Your task to perform on an android device: turn off notifications settings in the gmail app Image 0: 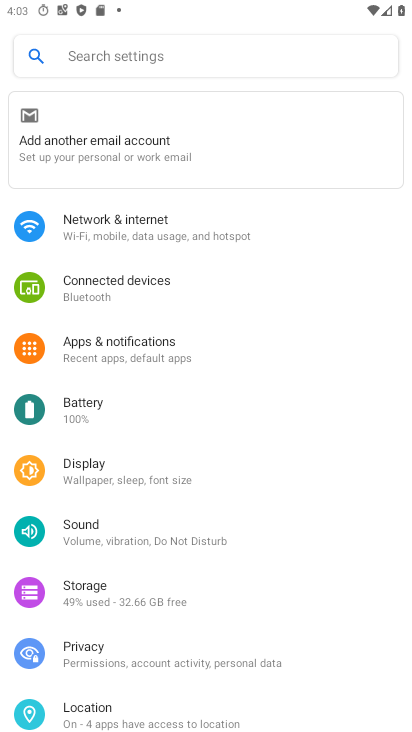
Step 0: press home button
Your task to perform on an android device: turn off notifications settings in the gmail app Image 1: 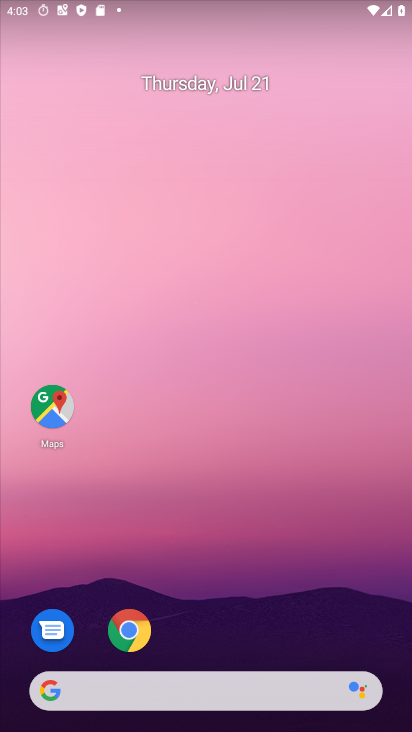
Step 1: drag from (174, 687) to (247, 56)
Your task to perform on an android device: turn off notifications settings in the gmail app Image 2: 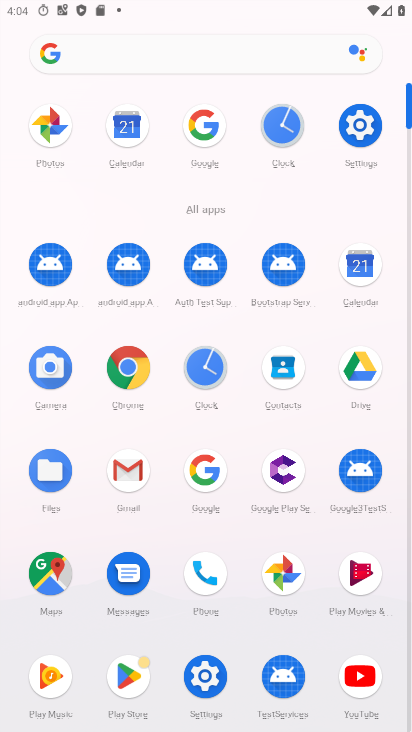
Step 2: click (128, 468)
Your task to perform on an android device: turn off notifications settings in the gmail app Image 3: 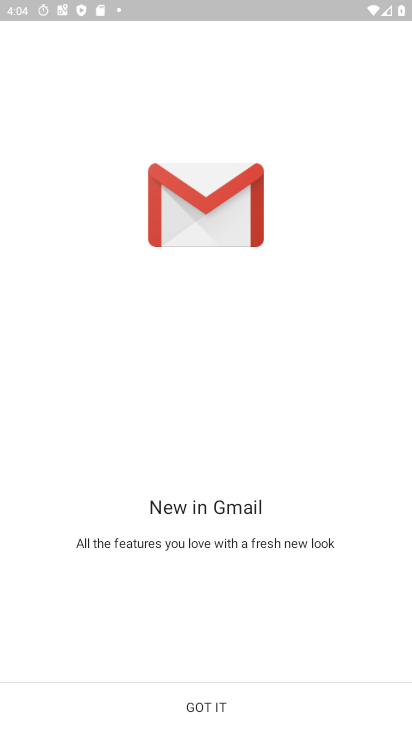
Step 3: click (208, 707)
Your task to perform on an android device: turn off notifications settings in the gmail app Image 4: 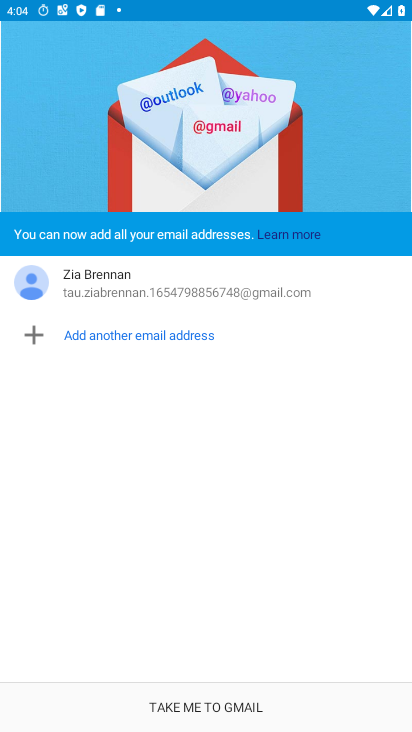
Step 4: click (208, 701)
Your task to perform on an android device: turn off notifications settings in the gmail app Image 5: 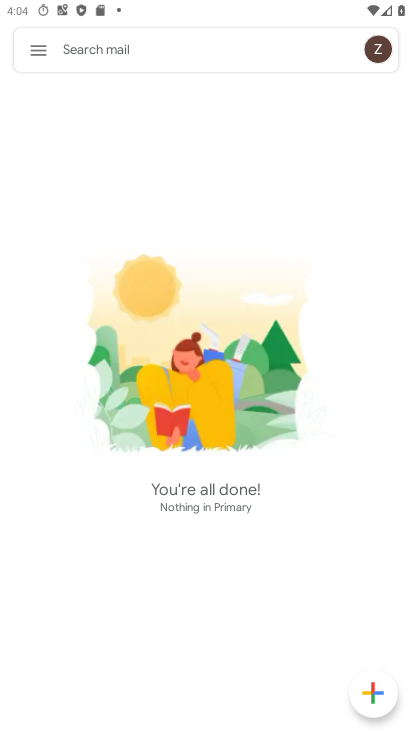
Step 5: click (41, 50)
Your task to perform on an android device: turn off notifications settings in the gmail app Image 6: 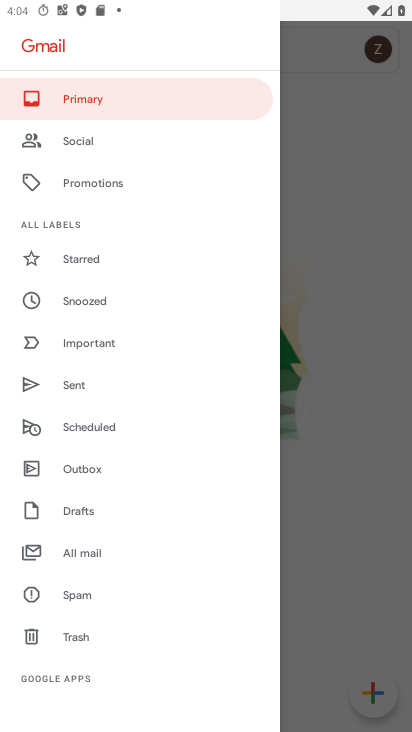
Step 6: drag from (79, 447) to (134, 320)
Your task to perform on an android device: turn off notifications settings in the gmail app Image 7: 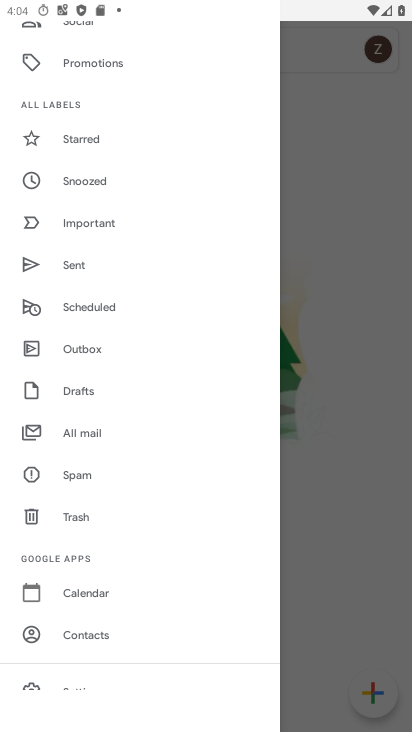
Step 7: drag from (101, 410) to (110, 284)
Your task to perform on an android device: turn off notifications settings in the gmail app Image 8: 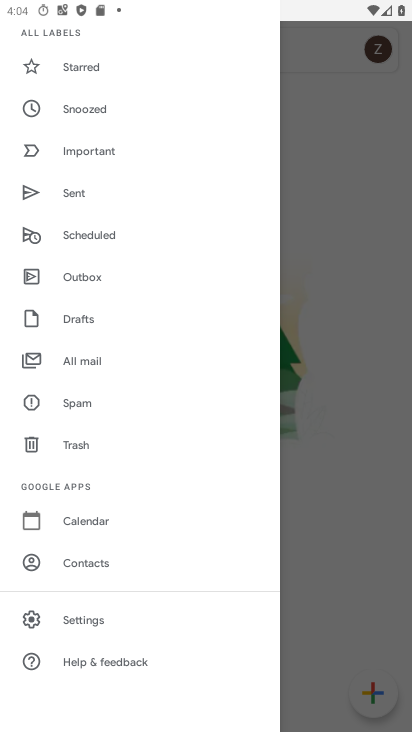
Step 8: click (85, 619)
Your task to perform on an android device: turn off notifications settings in the gmail app Image 9: 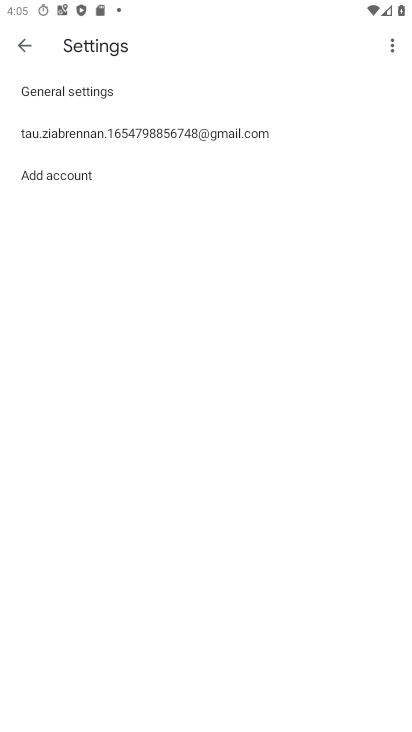
Step 9: click (111, 134)
Your task to perform on an android device: turn off notifications settings in the gmail app Image 10: 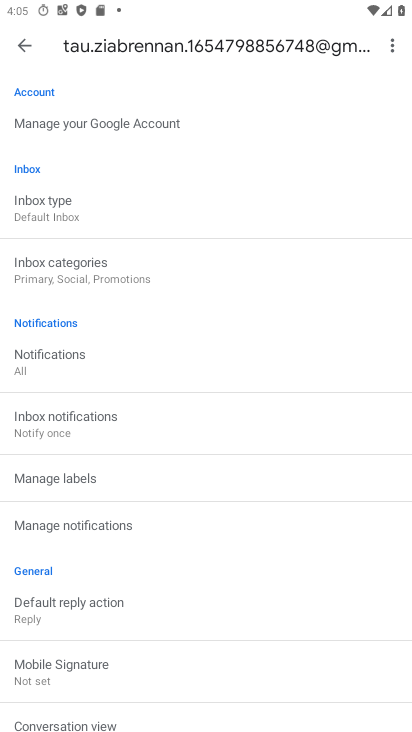
Step 10: click (78, 529)
Your task to perform on an android device: turn off notifications settings in the gmail app Image 11: 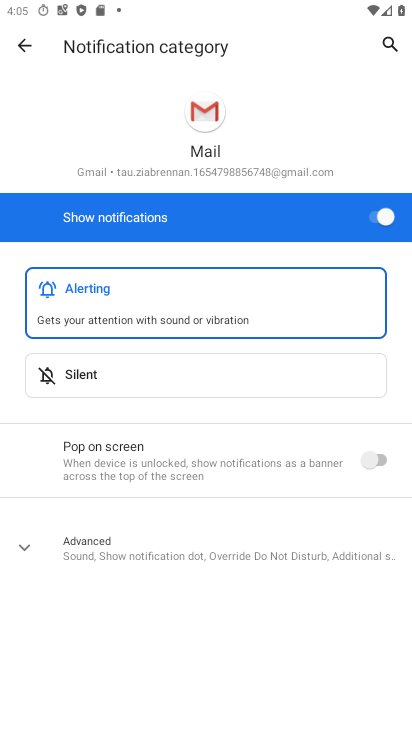
Step 11: click (376, 218)
Your task to perform on an android device: turn off notifications settings in the gmail app Image 12: 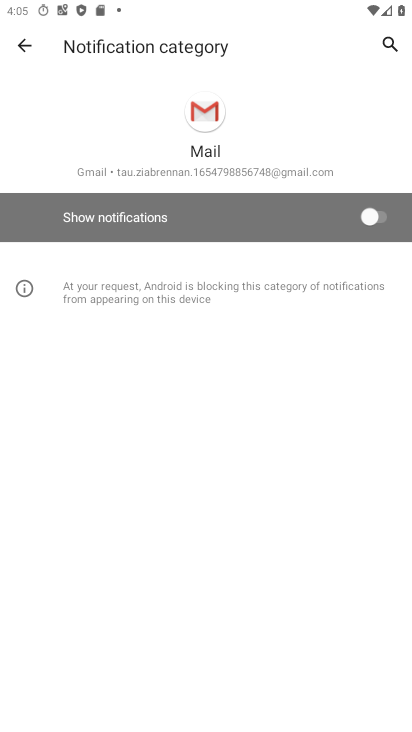
Step 12: task complete